Your task to perform on an android device: turn off picture-in-picture Image 0: 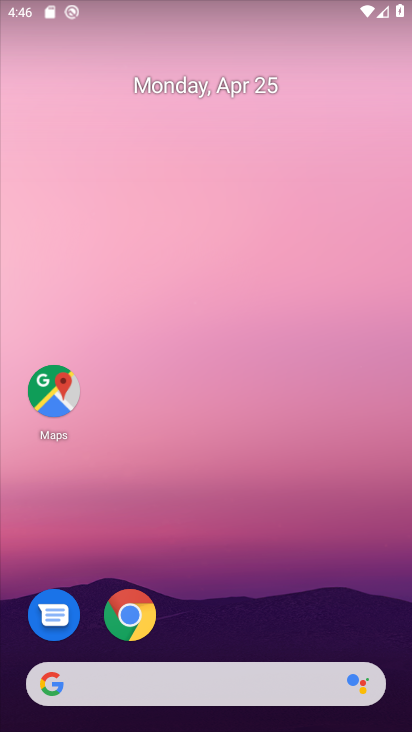
Step 0: click (128, 610)
Your task to perform on an android device: turn off picture-in-picture Image 1: 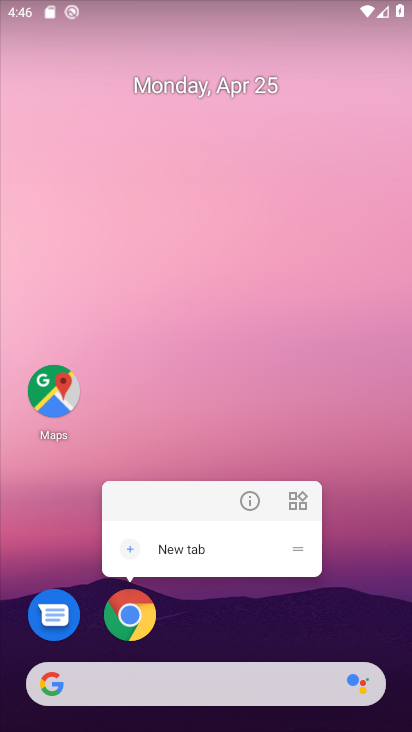
Step 1: click (241, 499)
Your task to perform on an android device: turn off picture-in-picture Image 2: 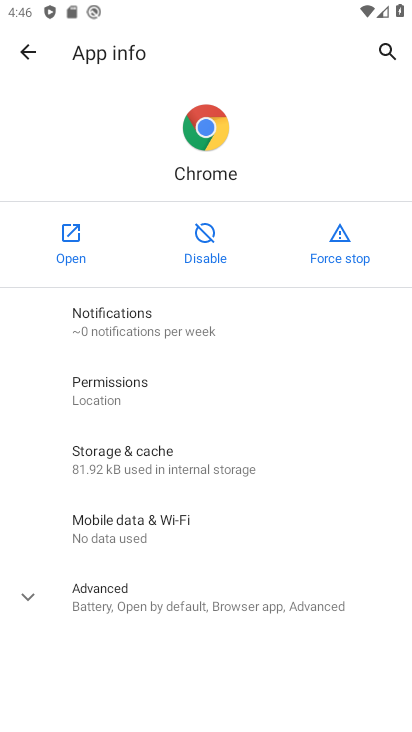
Step 2: drag from (185, 590) to (197, 315)
Your task to perform on an android device: turn off picture-in-picture Image 3: 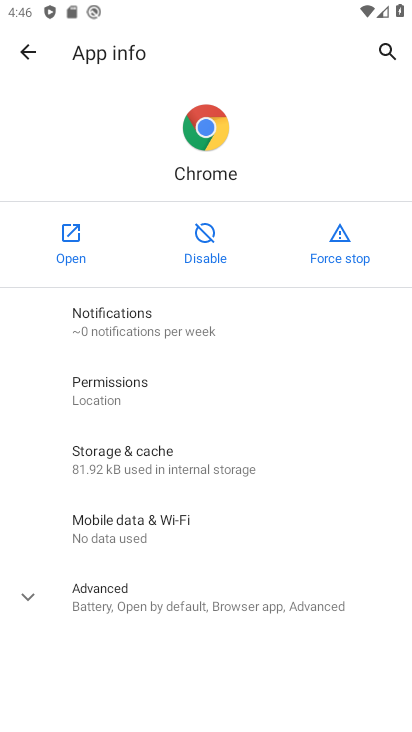
Step 3: click (123, 599)
Your task to perform on an android device: turn off picture-in-picture Image 4: 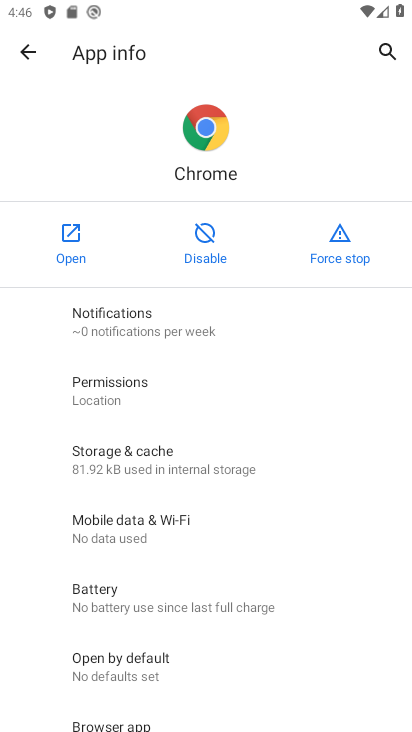
Step 4: drag from (94, 517) to (55, 390)
Your task to perform on an android device: turn off picture-in-picture Image 5: 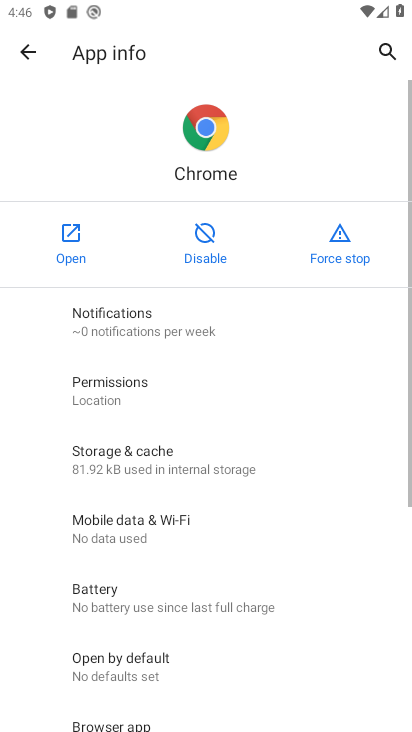
Step 5: drag from (220, 708) to (201, 330)
Your task to perform on an android device: turn off picture-in-picture Image 6: 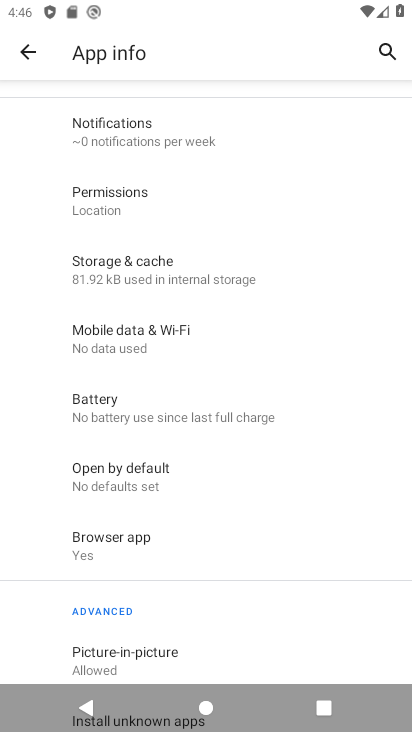
Step 6: drag from (239, 664) to (211, 299)
Your task to perform on an android device: turn off picture-in-picture Image 7: 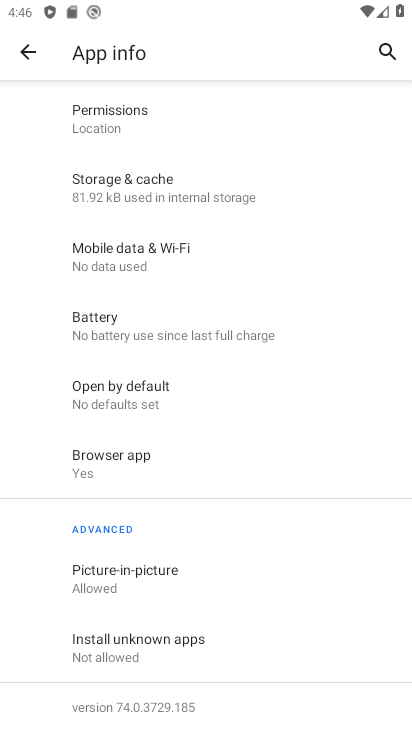
Step 7: click (148, 587)
Your task to perform on an android device: turn off picture-in-picture Image 8: 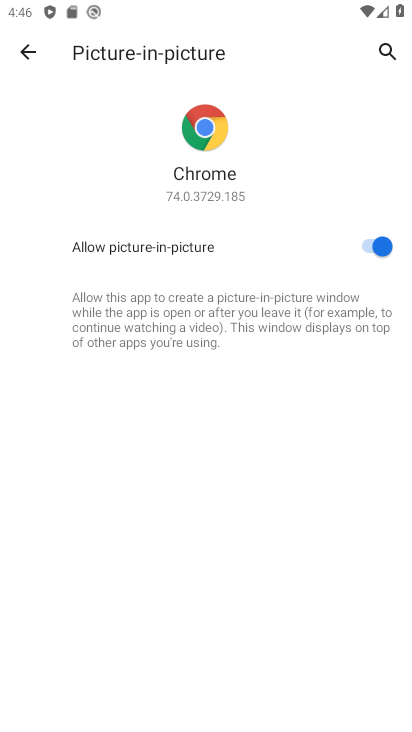
Step 8: click (368, 248)
Your task to perform on an android device: turn off picture-in-picture Image 9: 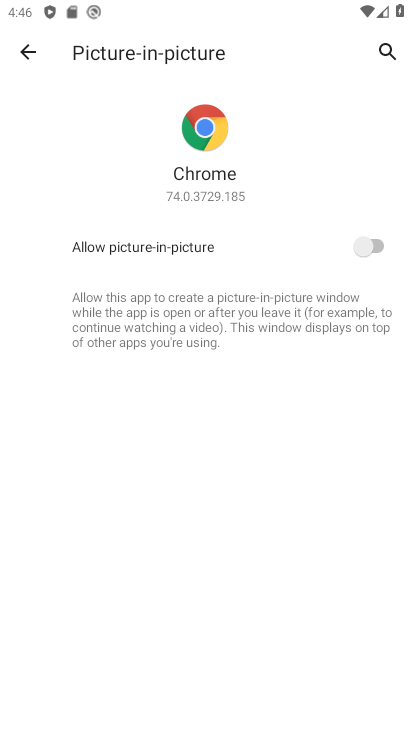
Step 9: task complete